Your task to perform on an android device: Is it going to rain tomorrow? Image 0: 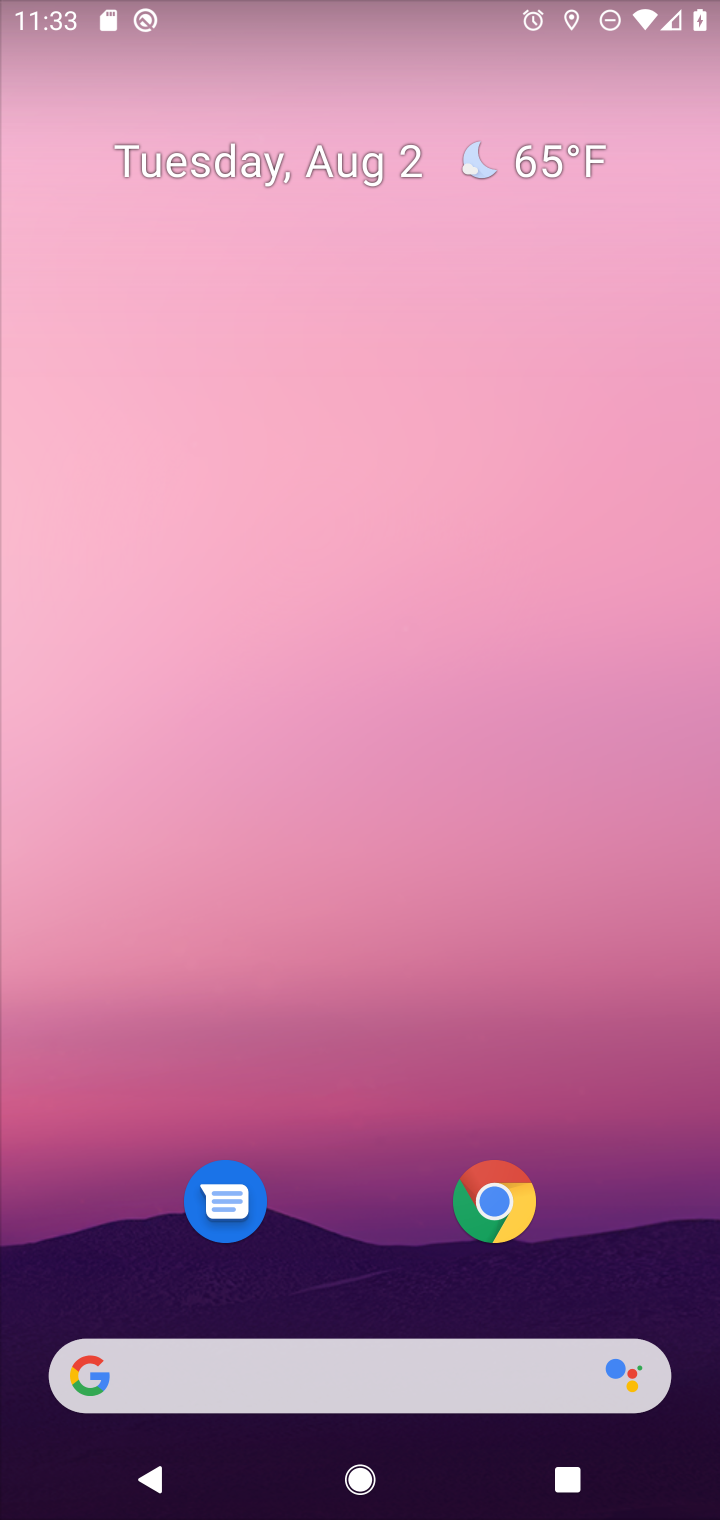
Step 0: drag from (352, 1313) to (499, 26)
Your task to perform on an android device: Is it going to rain tomorrow? Image 1: 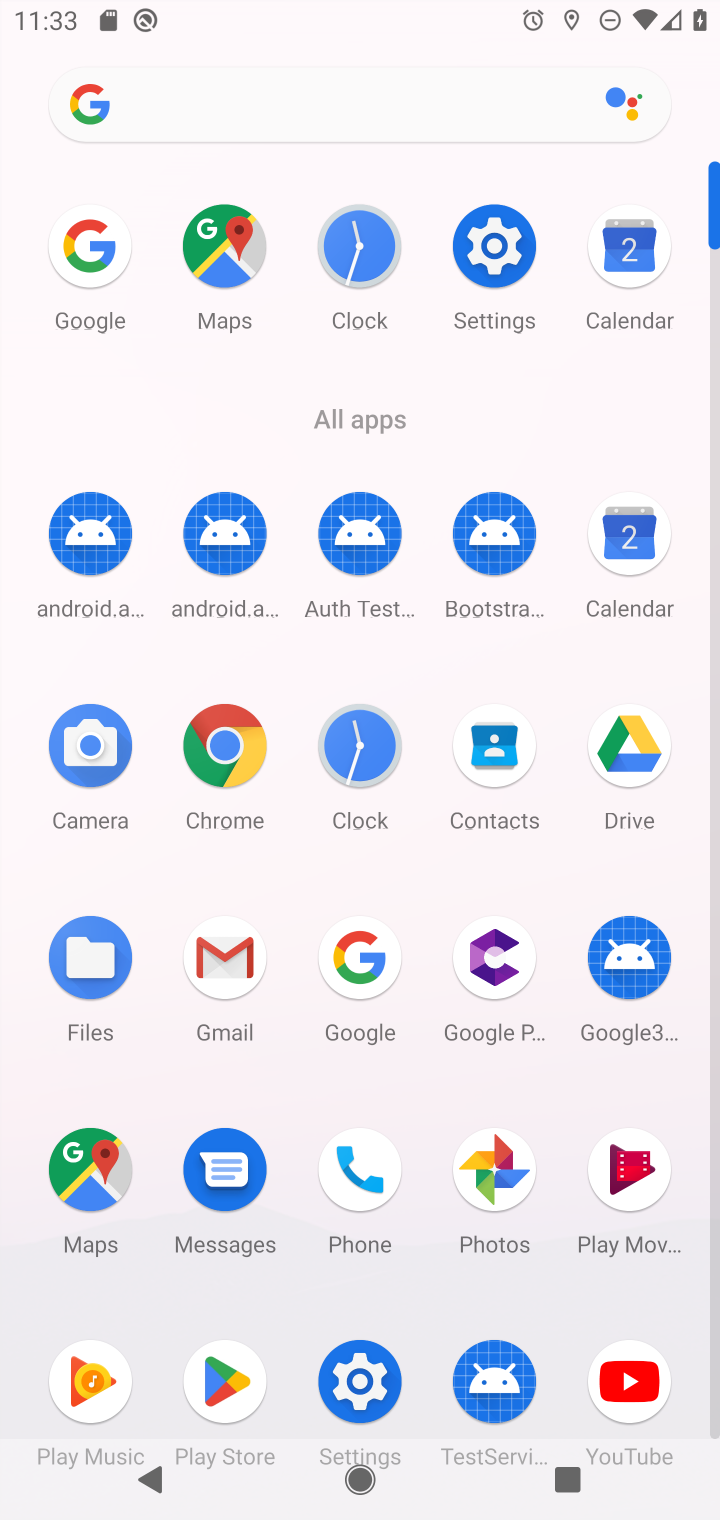
Step 1: click (642, 526)
Your task to perform on an android device: Is it going to rain tomorrow? Image 2: 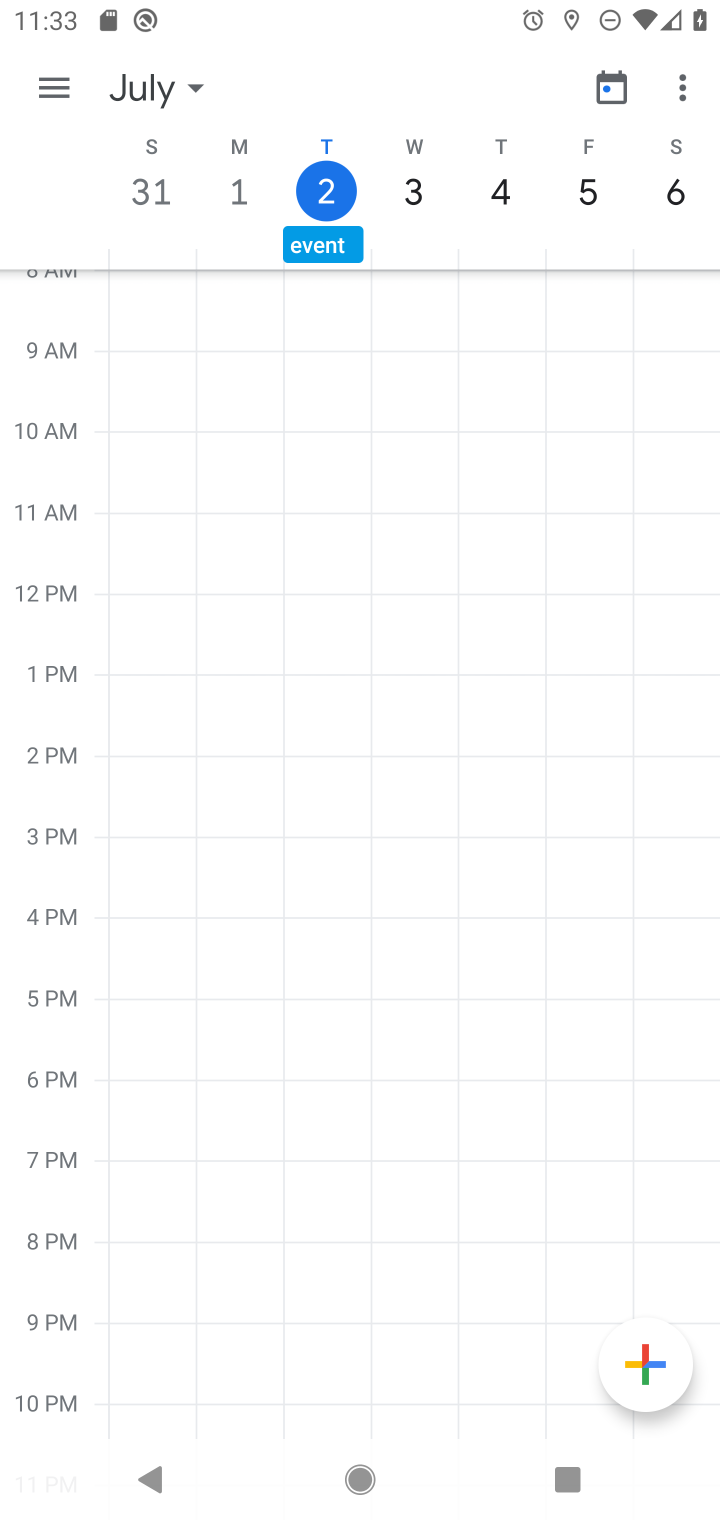
Step 2: click (397, 195)
Your task to perform on an android device: Is it going to rain tomorrow? Image 3: 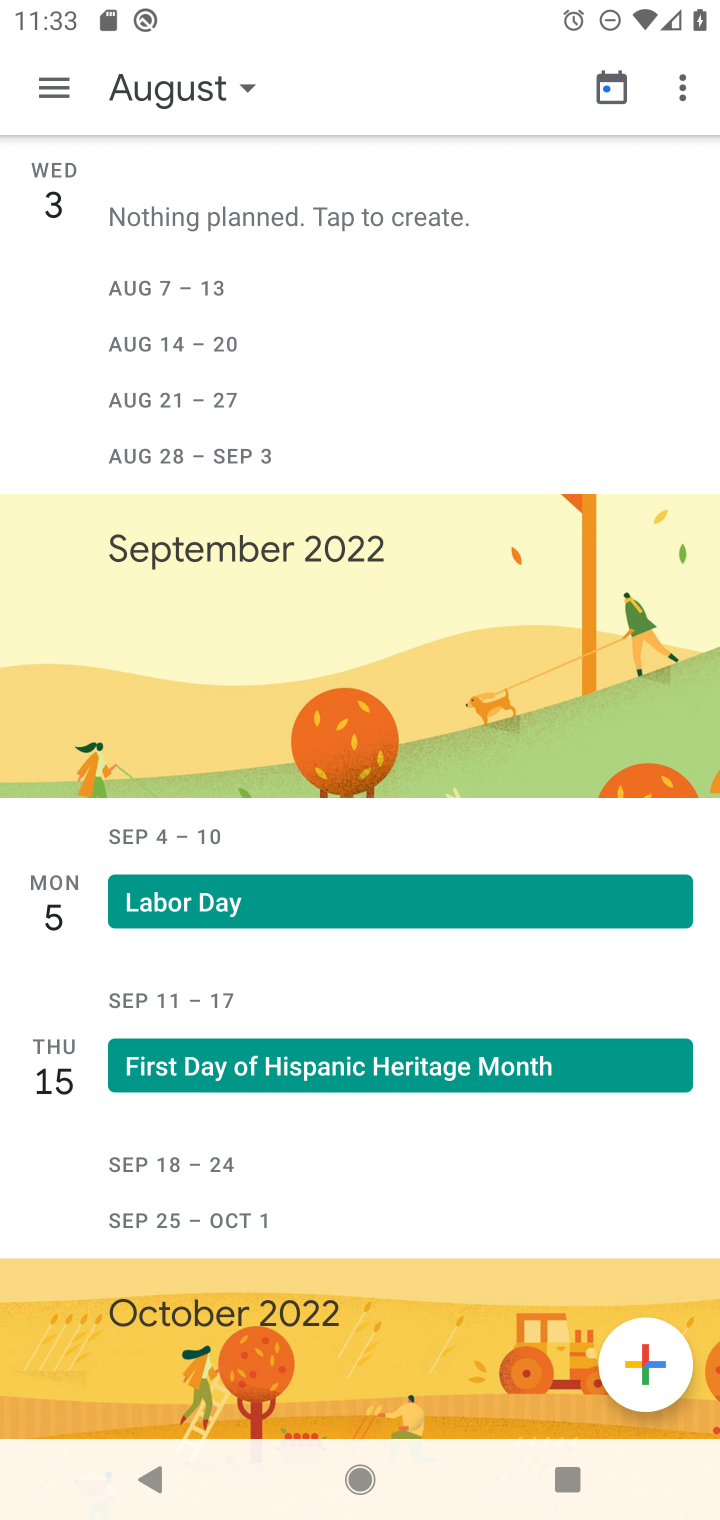
Step 3: task complete